Your task to perform on an android device: Open ESPN.com Image 0: 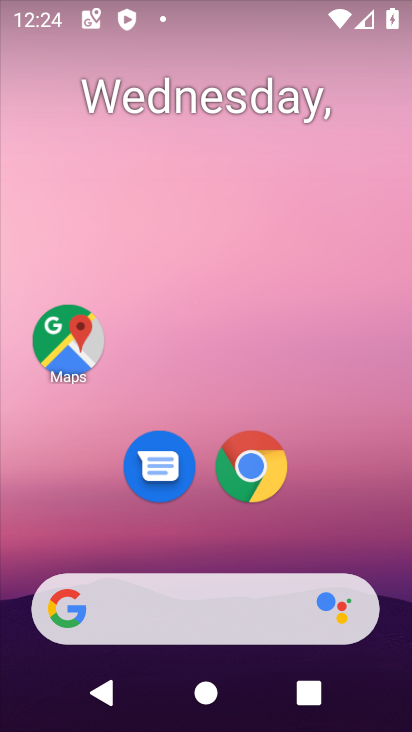
Step 0: click (257, 465)
Your task to perform on an android device: Open ESPN.com Image 1: 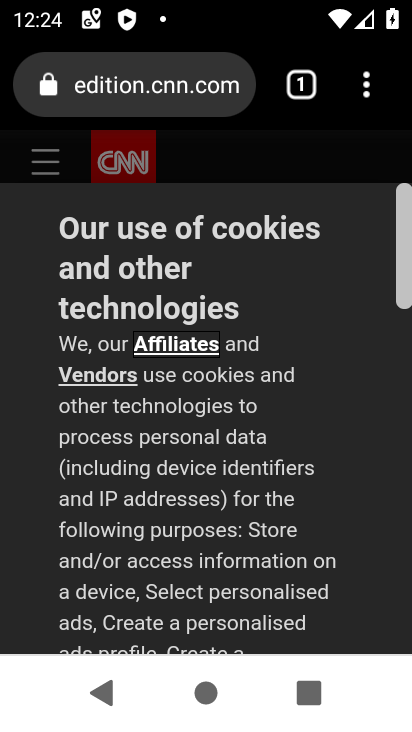
Step 1: click (297, 88)
Your task to perform on an android device: Open ESPN.com Image 2: 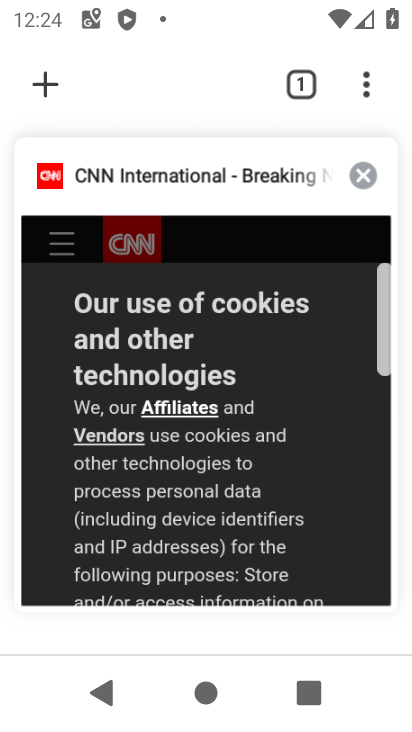
Step 2: click (66, 81)
Your task to perform on an android device: Open ESPN.com Image 3: 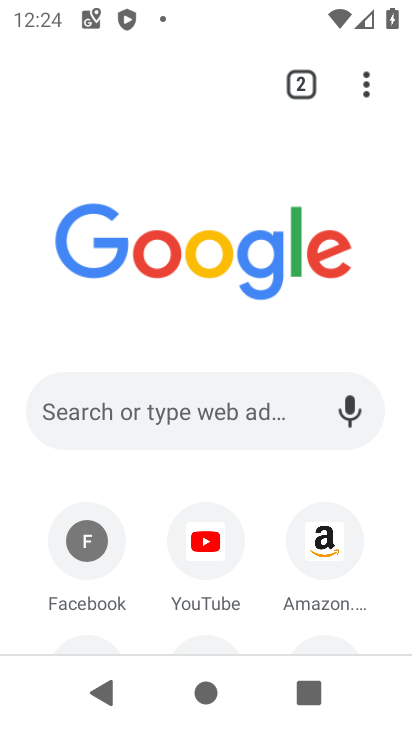
Step 3: drag from (260, 478) to (226, 275)
Your task to perform on an android device: Open ESPN.com Image 4: 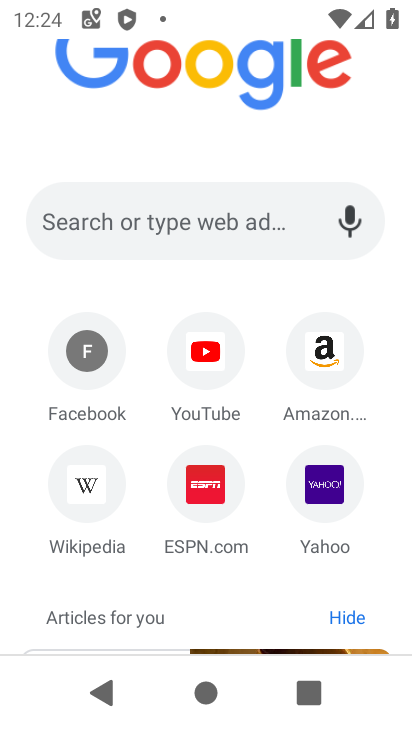
Step 4: click (232, 490)
Your task to perform on an android device: Open ESPN.com Image 5: 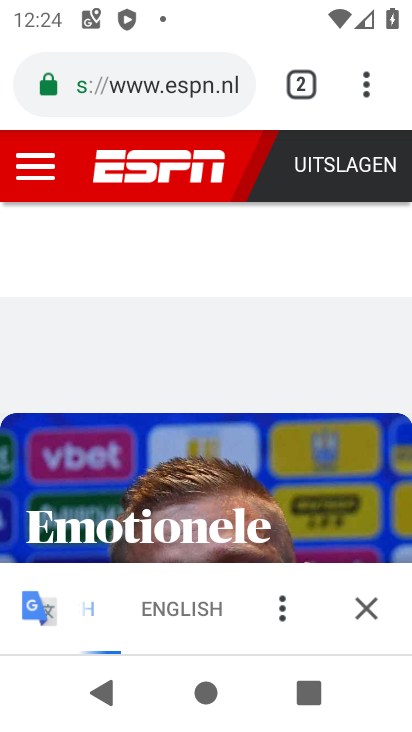
Step 5: task complete